Your task to perform on an android device: open app "The Home Depot" Image 0: 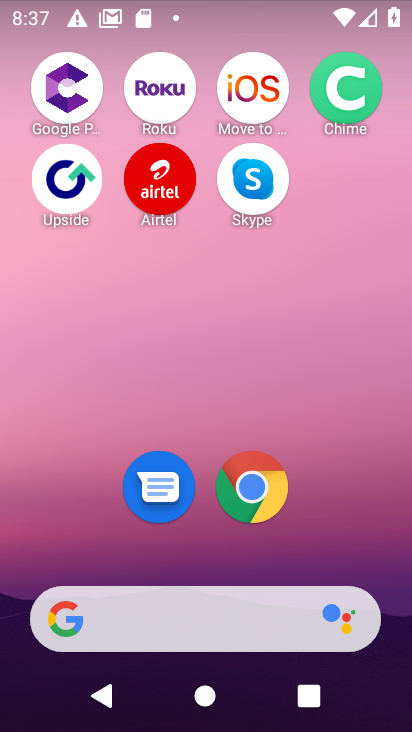
Step 0: drag from (219, 404) to (323, 32)
Your task to perform on an android device: open app "The Home Depot" Image 1: 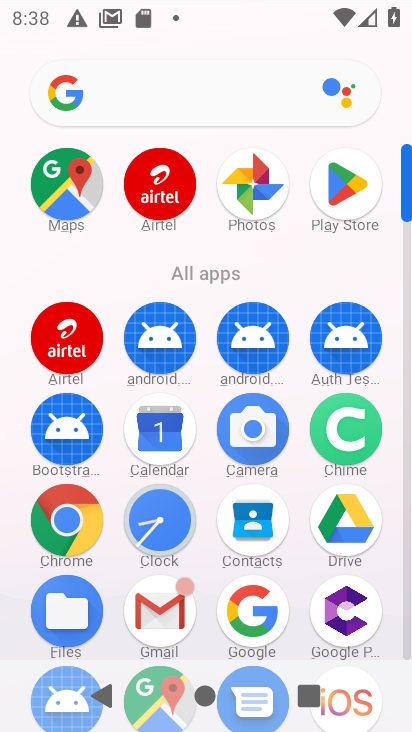
Step 1: click (334, 349)
Your task to perform on an android device: open app "The Home Depot" Image 2: 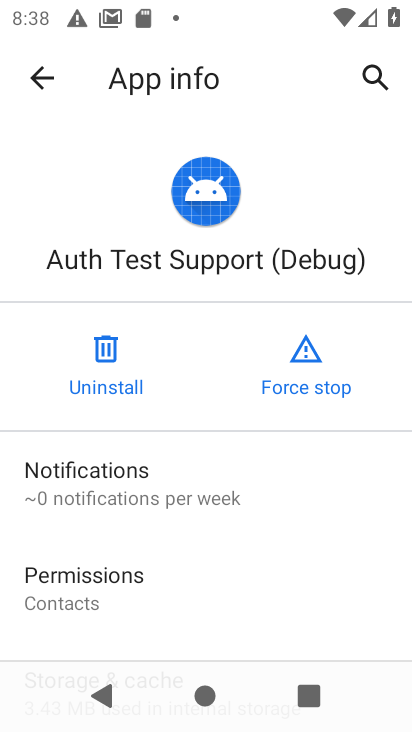
Step 2: click (33, 72)
Your task to perform on an android device: open app "The Home Depot" Image 3: 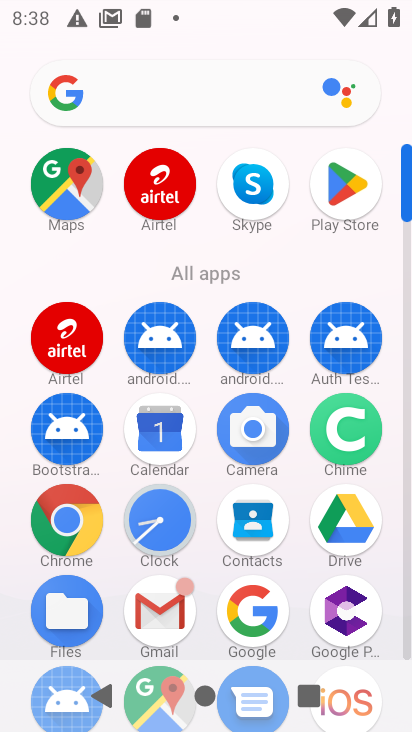
Step 3: click (332, 199)
Your task to perform on an android device: open app "The Home Depot" Image 4: 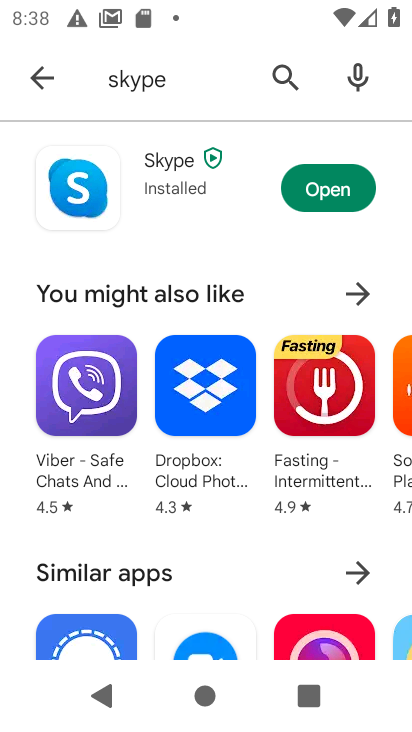
Step 4: click (41, 71)
Your task to perform on an android device: open app "The Home Depot" Image 5: 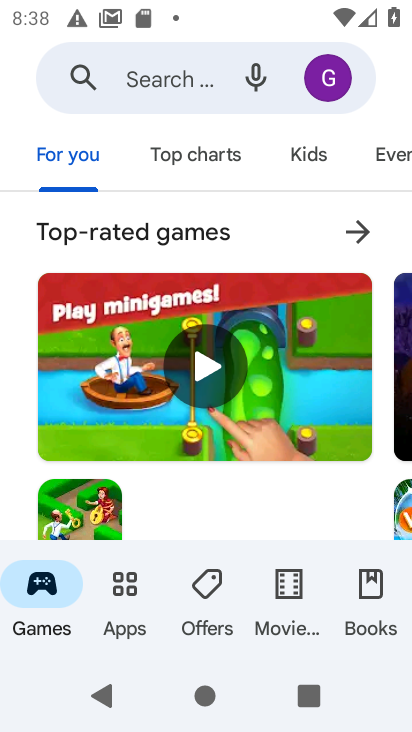
Step 5: click (151, 77)
Your task to perform on an android device: open app "The Home Depot" Image 6: 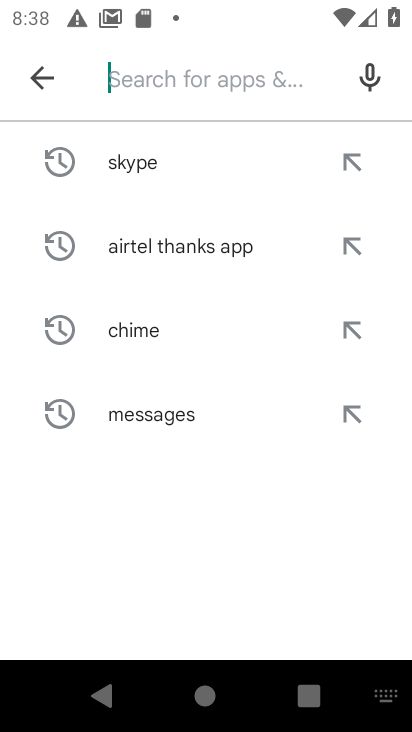
Step 6: type "The Home Depot"
Your task to perform on an android device: open app "The Home Depot" Image 7: 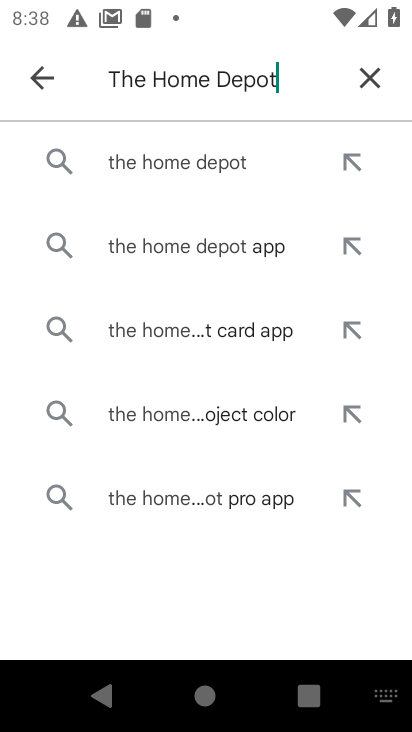
Step 7: click (236, 168)
Your task to perform on an android device: open app "The Home Depot" Image 8: 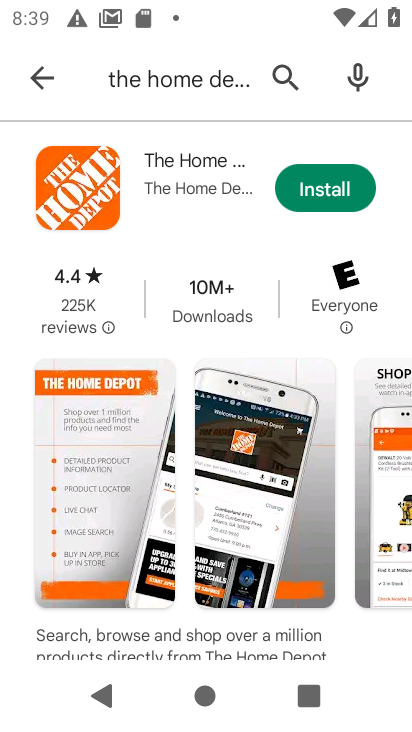
Step 8: click (315, 190)
Your task to perform on an android device: open app "The Home Depot" Image 9: 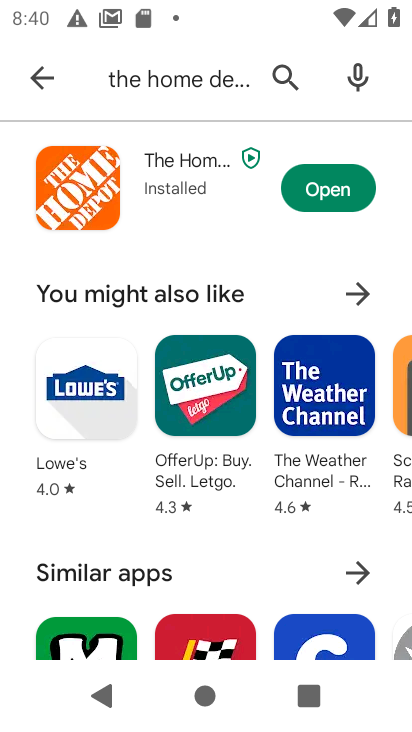
Step 9: click (329, 179)
Your task to perform on an android device: open app "The Home Depot" Image 10: 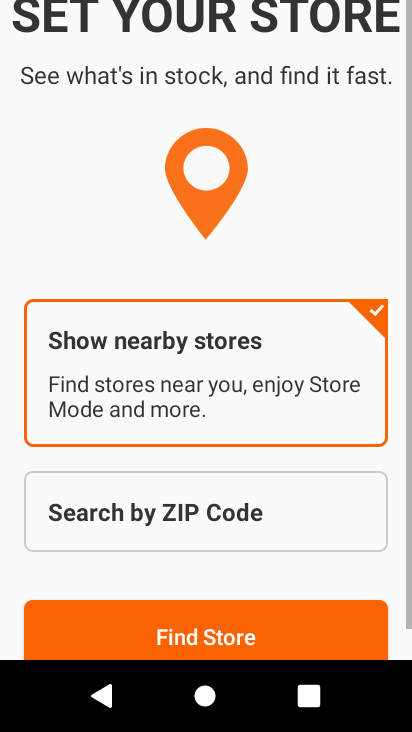
Step 10: task complete